Your task to perform on an android device: Show me recent news Image 0: 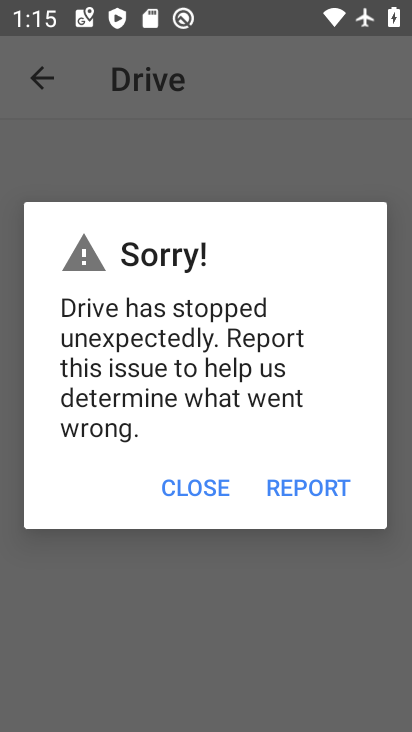
Step 0: press home button
Your task to perform on an android device: Show me recent news Image 1: 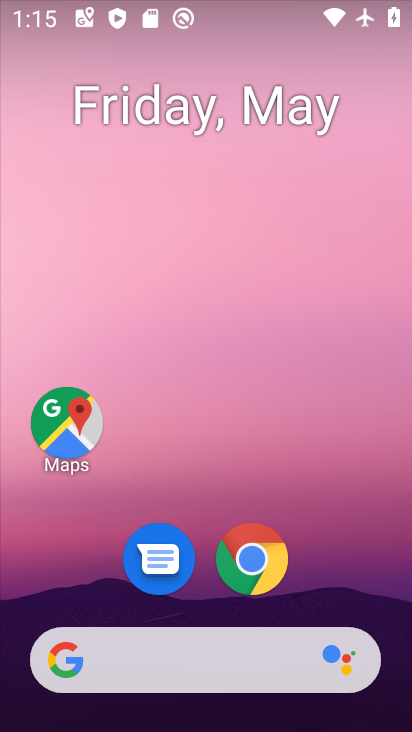
Step 1: click (245, 549)
Your task to perform on an android device: Show me recent news Image 2: 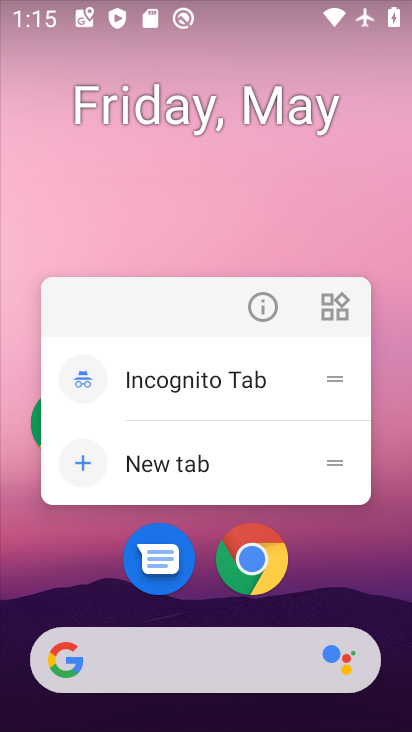
Step 2: click (241, 557)
Your task to perform on an android device: Show me recent news Image 3: 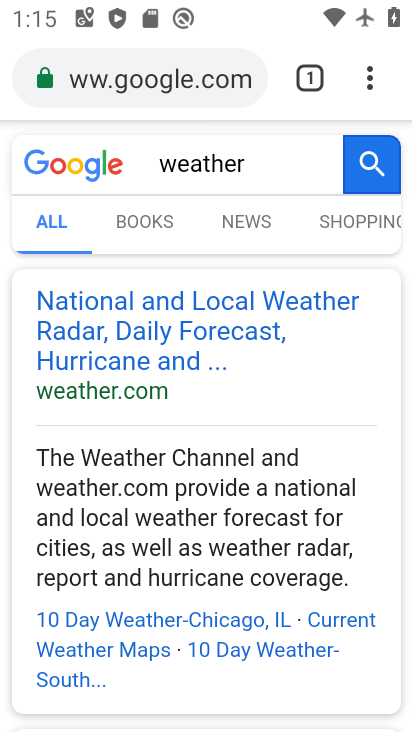
Step 3: click (207, 80)
Your task to perform on an android device: Show me recent news Image 4: 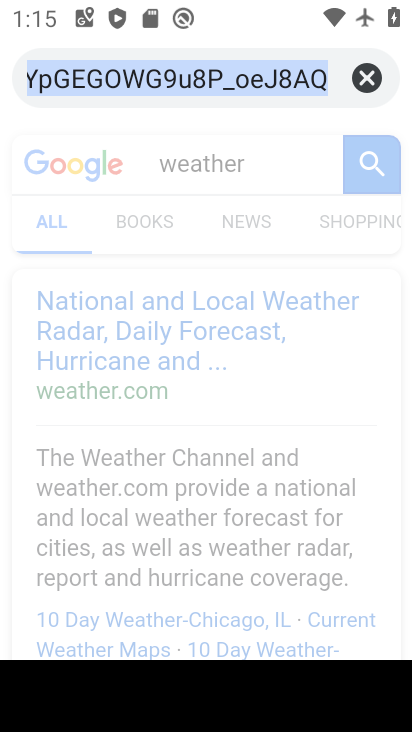
Step 4: type "news"
Your task to perform on an android device: Show me recent news Image 5: 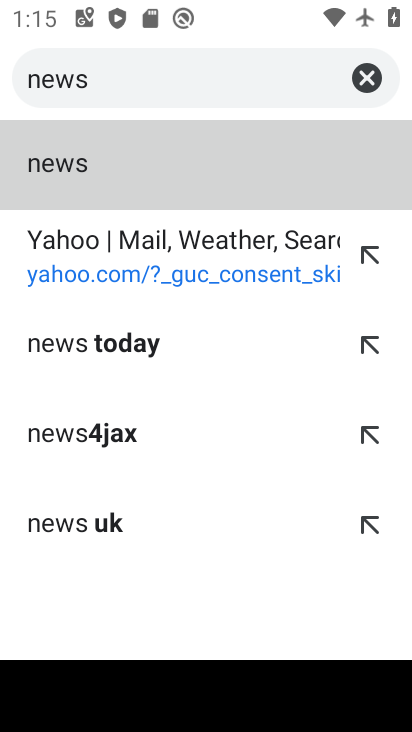
Step 5: click (32, 170)
Your task to perform on an android device: Show me recent news Image 6: 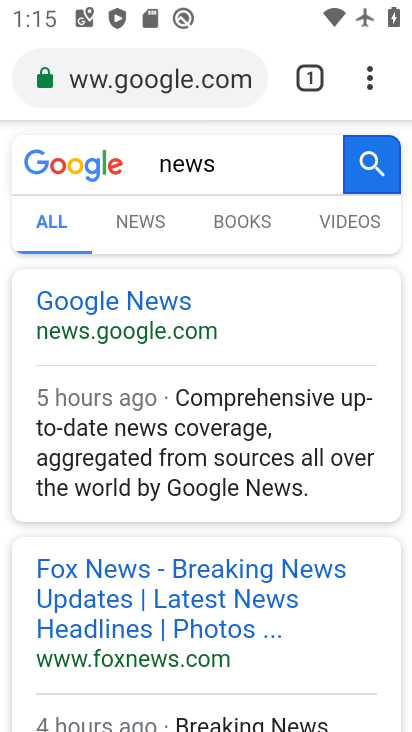
Step 6: click (123, 222)
Your task to perform on an android device: Show me recent news Image 7: 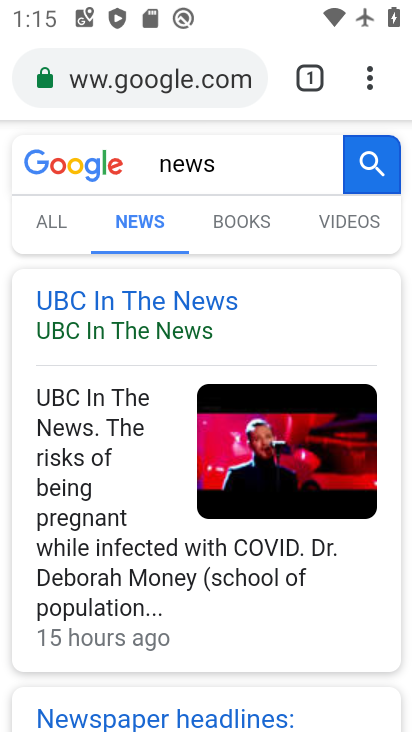
Step 7: task complete